Your task to perform on an android device: turn off airplane mode Image 0: 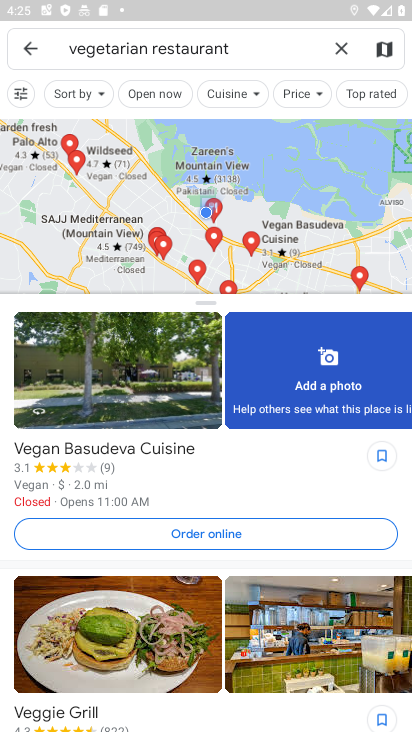
Step 0: click (23, 43)
Your task to perform on an android device: turn off airplane mode Image 1: 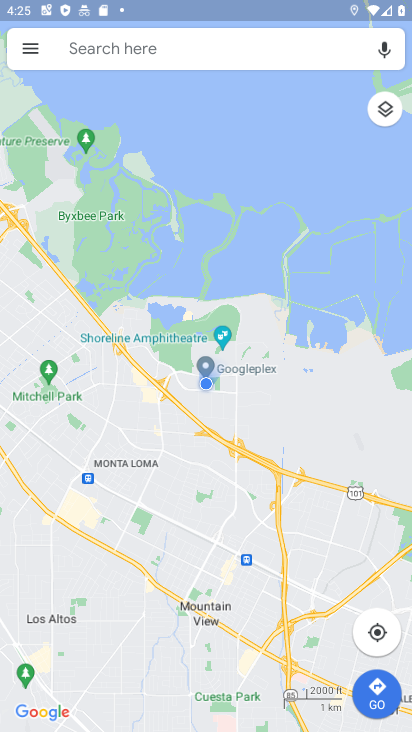
Step 1: press back button
Your task to perform on an android device: turn off airplane mode Image 2: 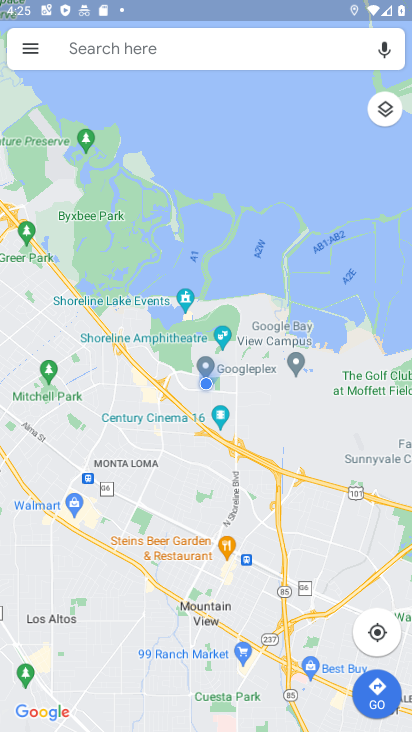
Step 2: press back button
Your task to perform on an android device: turn off airplane mode Image 3: 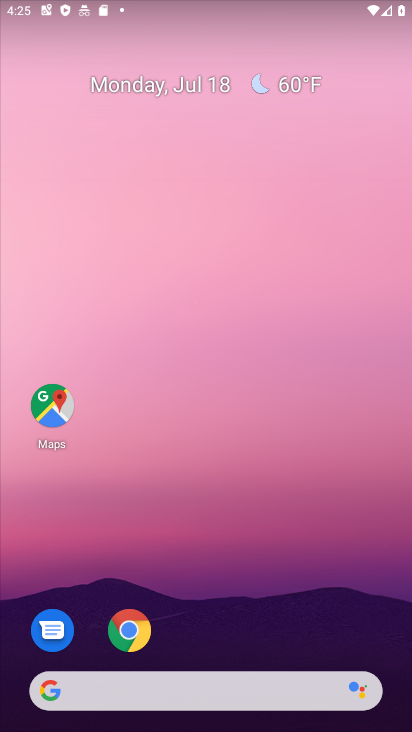
Step 3: press home button
Your task to perform on an android device: turn off airplane mode Image 4: 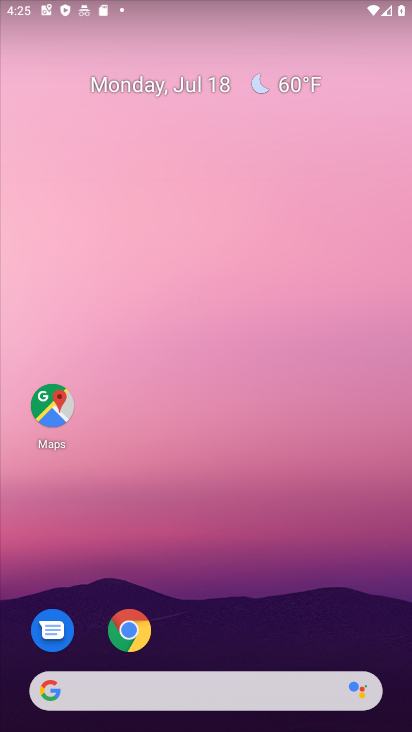
Step 4: drag from (204, 725) to (130, 118)
Your task to perform on an android device: turn off airplane mode Image 5: 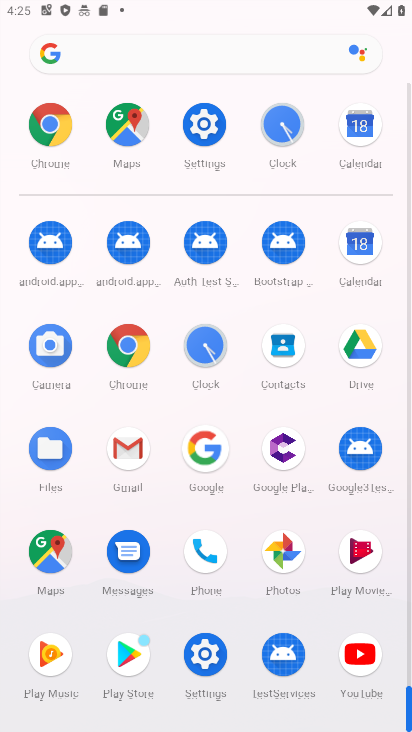
Step 5: click (203, 131)
Your task to perform on an android device: turn off airplane mode Image 6: 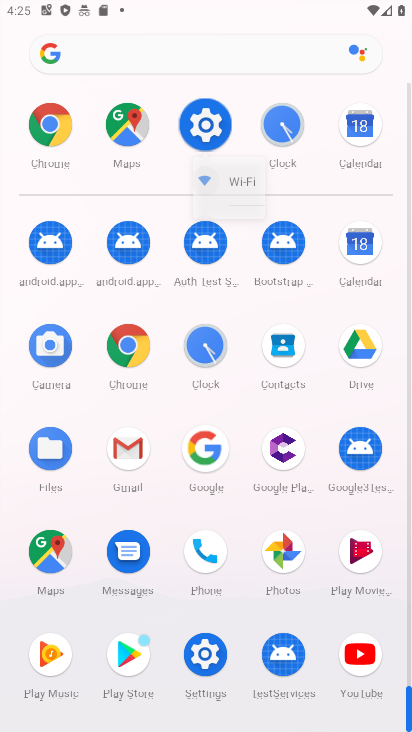
Step 6: click (203, 130)
Your task to perform on an android device: turn off airplane mode Image 7: 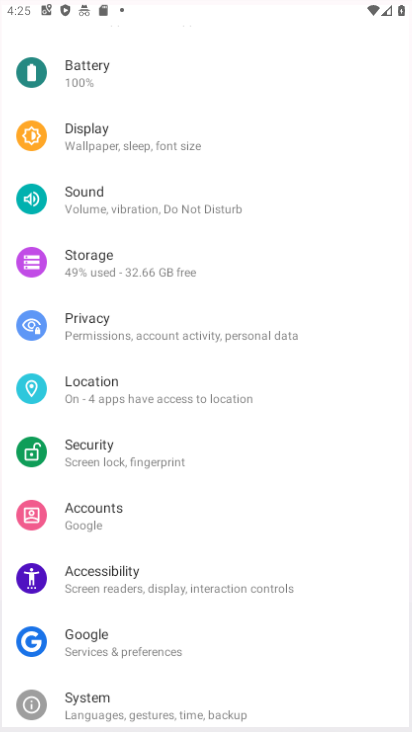
Step 7: click (203, 130)
Your task to perform on an android device: turn off airplane mode Image 8: 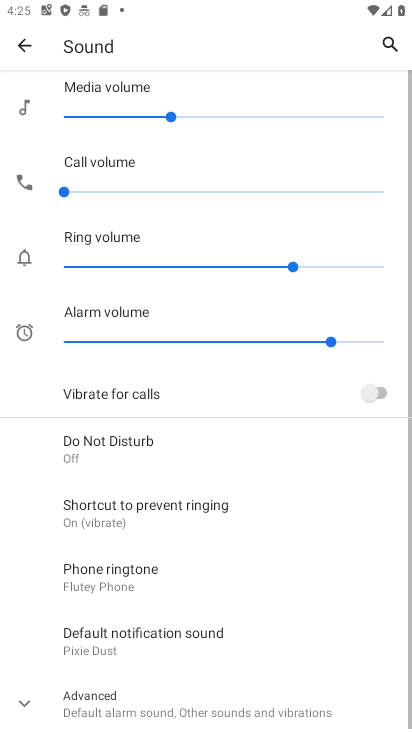
Step 8: drag from (126, 60) to (170, 378)
Your task to perform on an android device: turn off airplane mode Image 9: 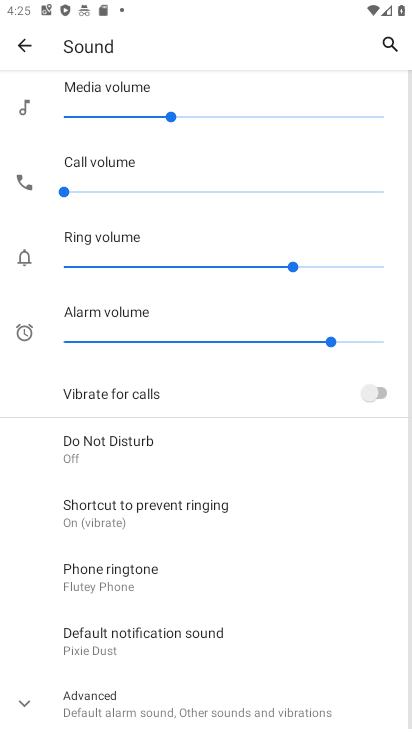
Step 9: click (36, 41)
Your task to perform on an android device: turn off airplane mode Image 10: 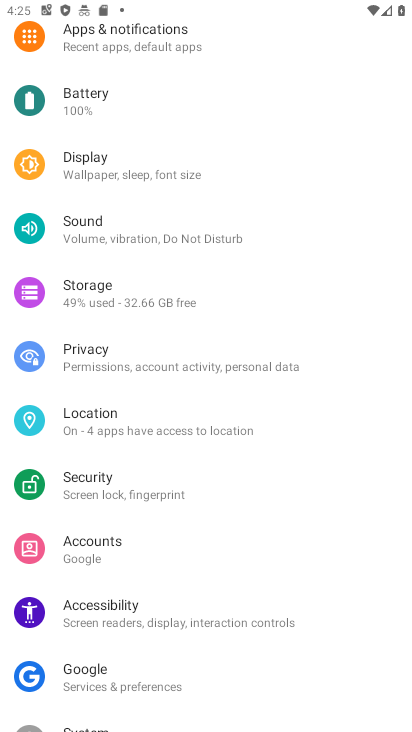
Step 10: click (150, 32)
Your task to perform on an android device: turn off airplane mode Image 11: 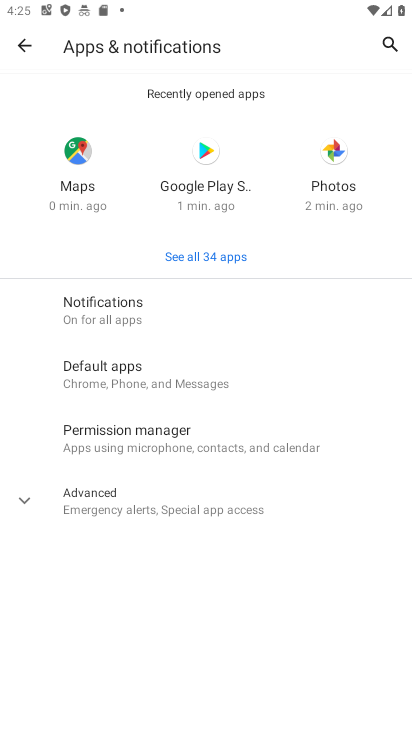
Step 11: click (23, 50)
Your task to perform on an android device: turn off airplane mode Image 12: 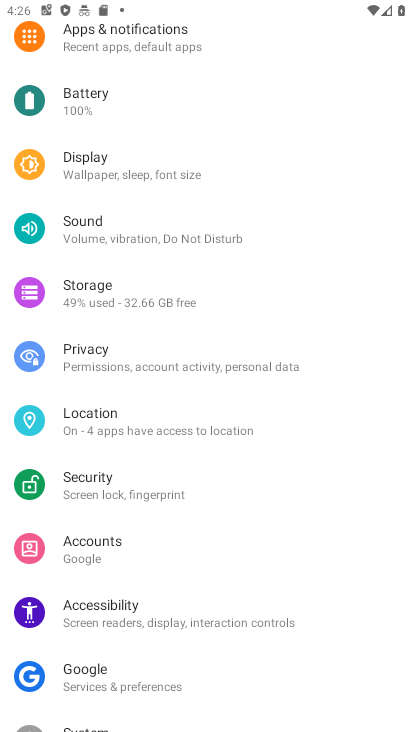
Step 12: drag from (113, 42) to (114, 356)
Your task to perform on an android device: turn off airplane mode Image 13: 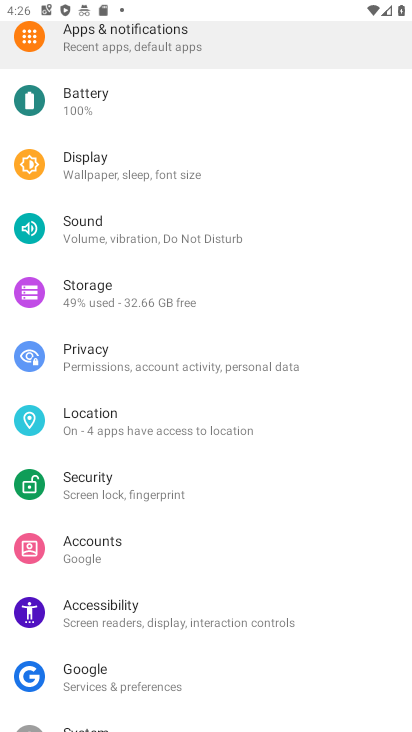
Step 13: drag from (137, 141) to (212, 520)
Your task to perform on an android device: turn off airplane mode Image 14: 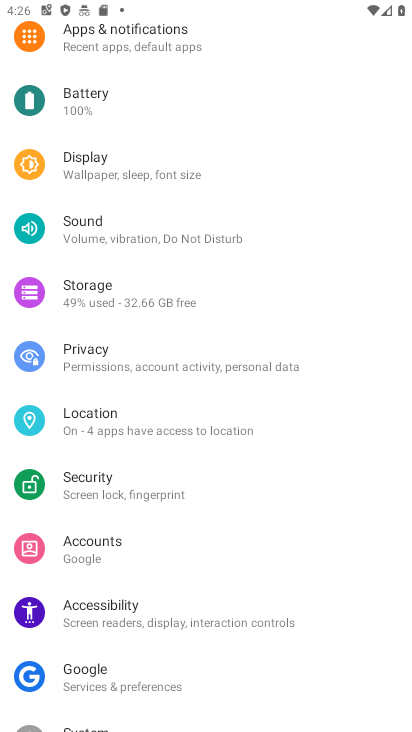
Step 14: drag from (116, 179) to (204, 544)
Your task to perform on an android device: turn off airplane mode Image 15: 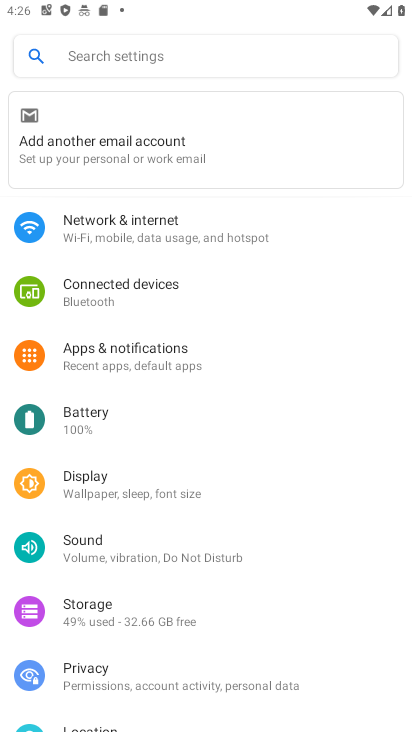
Step 15: drag from (166, 144) to (208, 454)
Your task to perform on an android device: turn off airplane mode Image 16: 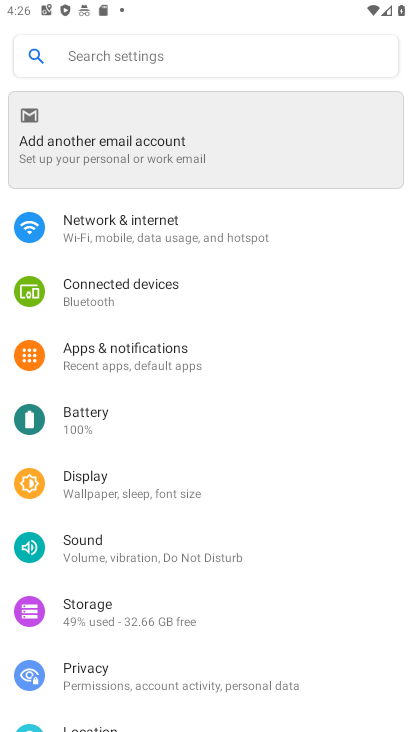
Step 16: drag from (117, 120) to (156, 434)
Your task to perform on an android device: turn off airplane mode Image 17: 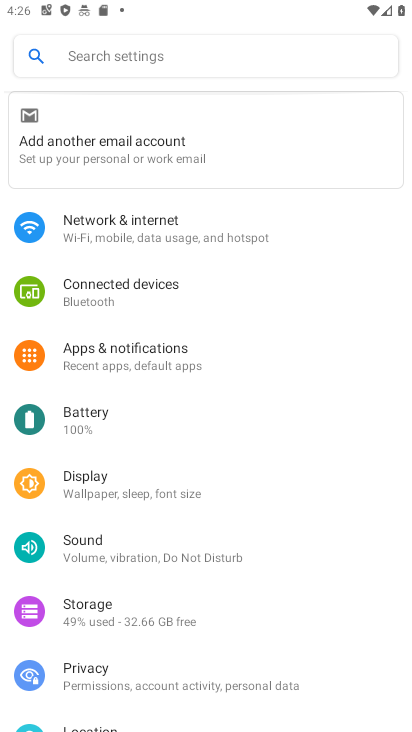
Step 17: click (125, 214)
Your task to perform on an android device: turn off airplane mode Image 18: 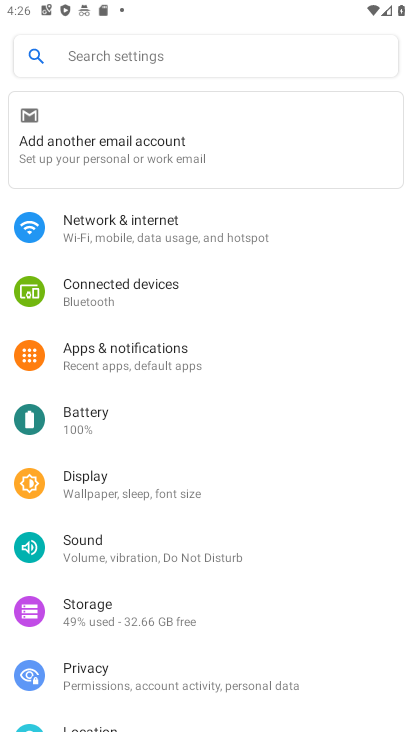
Step 18: click (124, 241)
Your task to perform on an android device: turn off airplane mode Image 19: 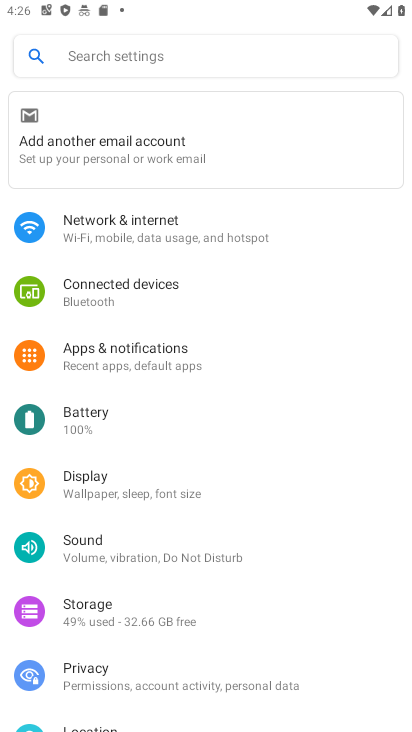
Step 19: click (132, 239)
Your task to perform on an android device: turn off airplane mode Image 20: 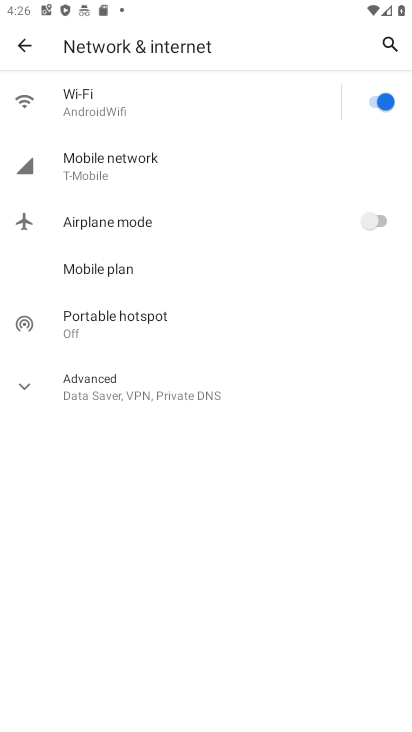
Step 20: click (381, 102)
Your task to perform on an android device: turn off airplane mode Image 21: 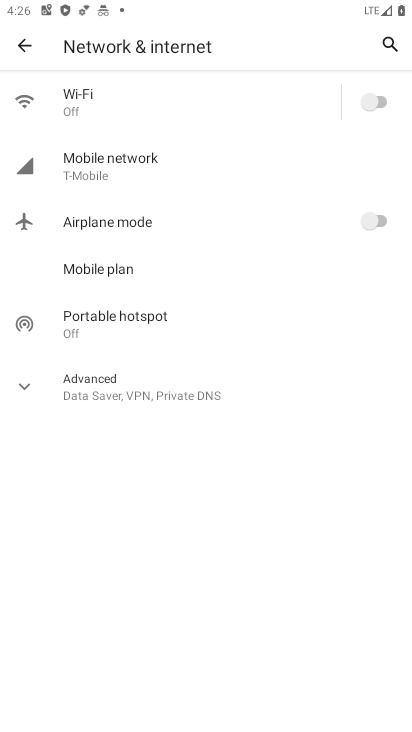
Step 21: click (373, 98)
Your task to perform on an android device: turn off airplane mode Image 22: 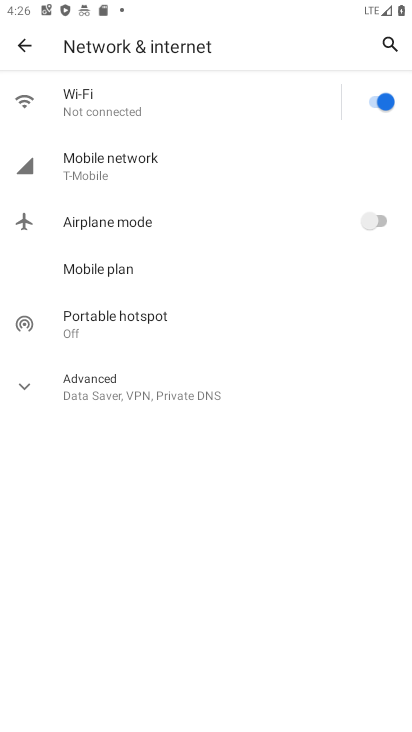
Step 22: task complete